Your task to perform on an android device: Open Amazon Image 0: 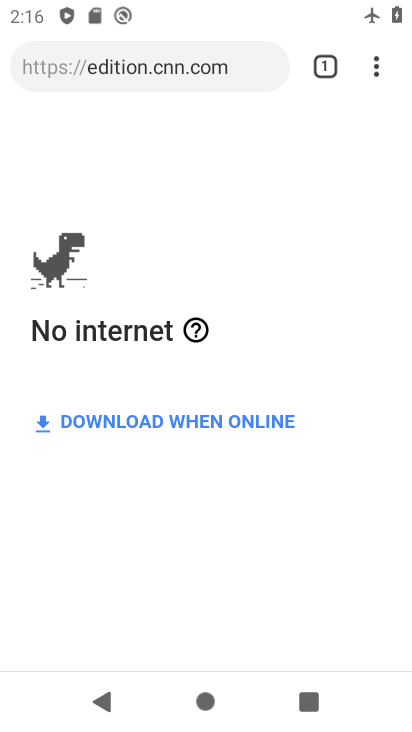
Step 0: press home button
Your task to perform on an android device: Open Amazon Image 1: 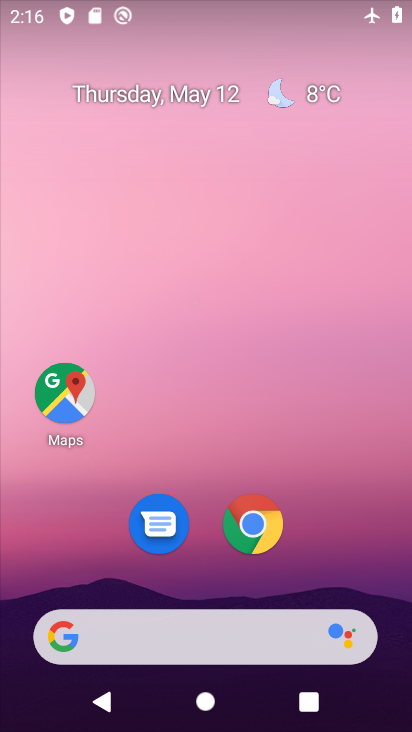
Step 1: click (219, 633)
Your task to perform on an android device: Open Amazon Image 2: 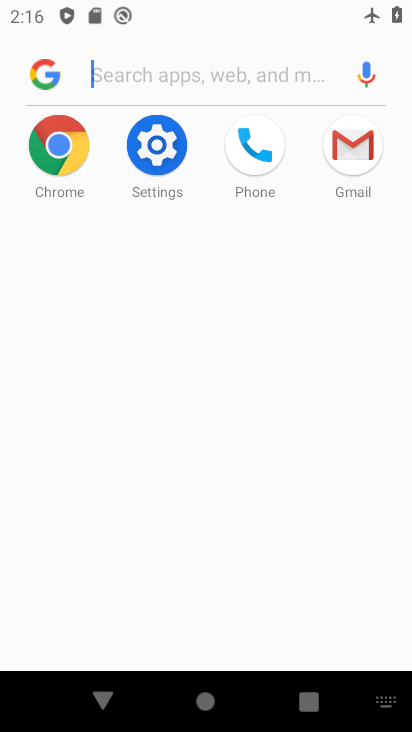
Step 2: type "amazon"
Your task to perform on an android device: Open Amazon Image 3: 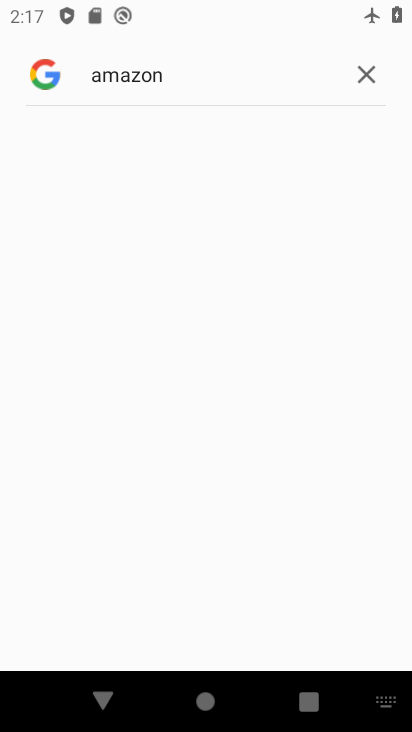
Step 3: task complete